Your task to perform on an android device: Do I have any events today? Image 0: 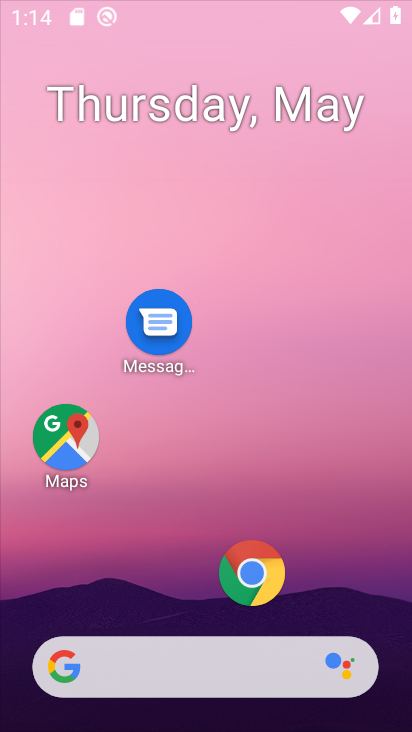
Step 0: click (203, 253)
Your task to perform on an android device: Do I have any events today? Image 1: 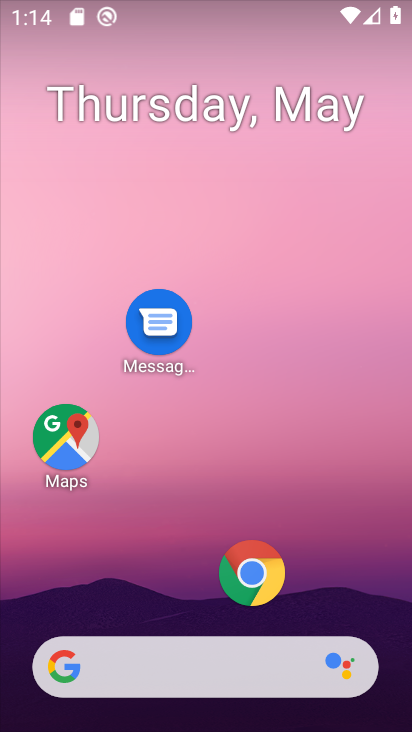
Step 1: drag from (212, 603) to (257, 126)
Your task to perform on an android device: Do I have any events today? Image 2: 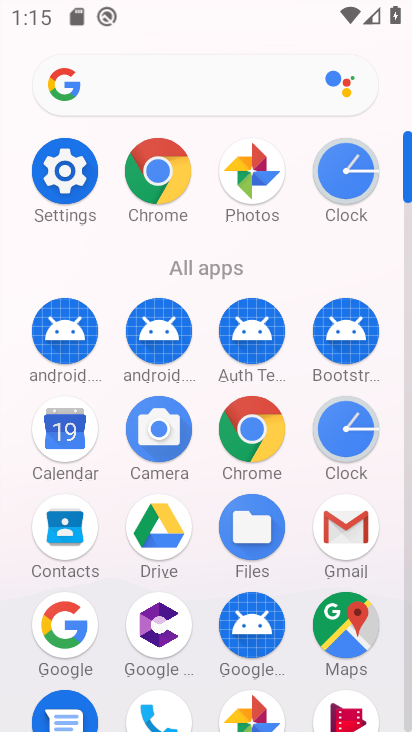
Step 2: click (72, 429)
Your task to perform on an android device: Do I have any events today? Image 3: 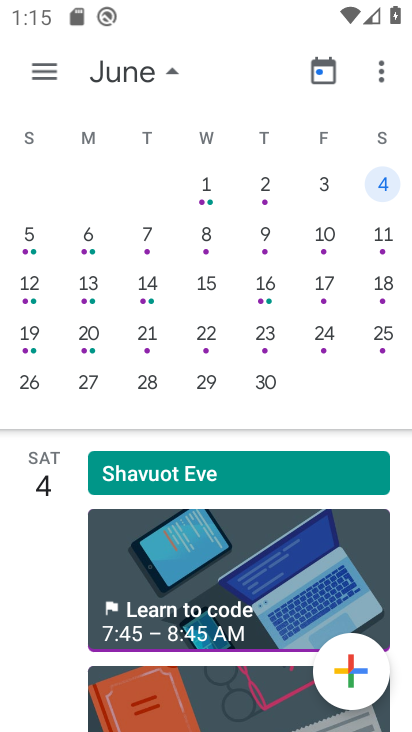
Step 3: drag from (100, 203) to (407, 194)
Your task to perform on an android device: Do I have any events today? Image 4: 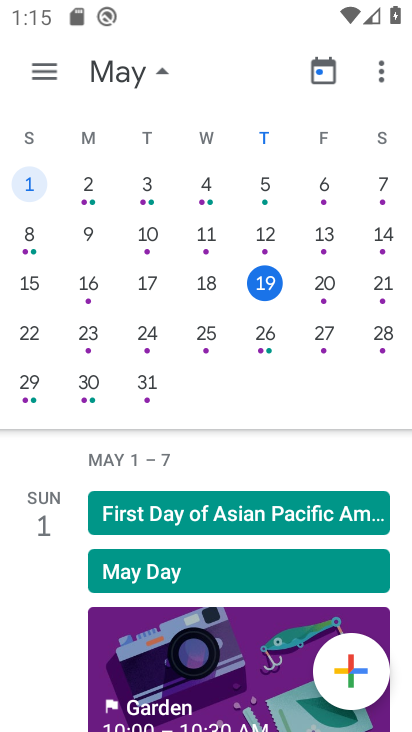
Step 4: click (257, 279)
Your task to perform on an android device: Do I have any events today? Image 5: 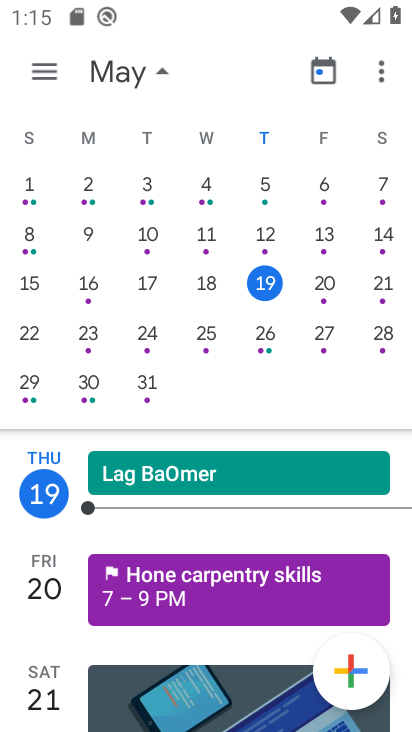
Step 5: task complete